Your task to perform on an android device: clear history in the chrome app Image 0: 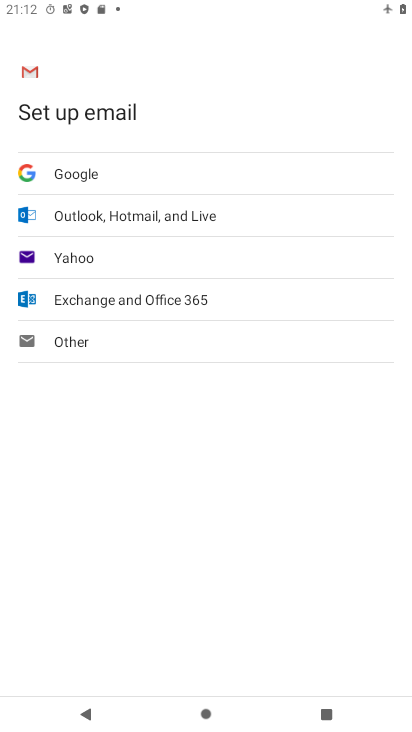
Step 0: press home button
Your task to perform on an android device: clear history in the chrome app Image 1: 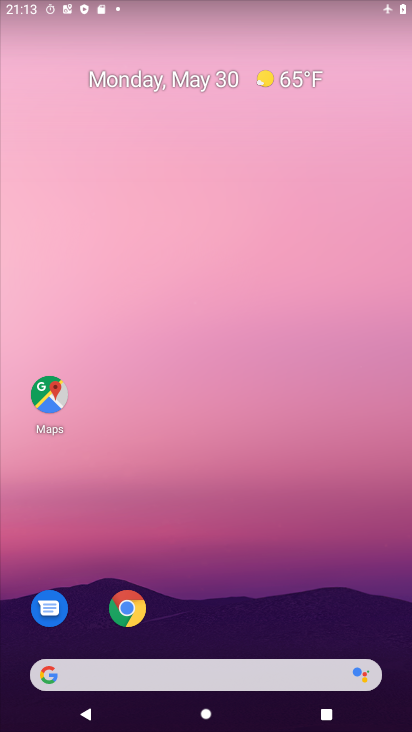
Step 1: click (118, 602)
Your task to perform on an android device: clear history in the chrome app Image 2: 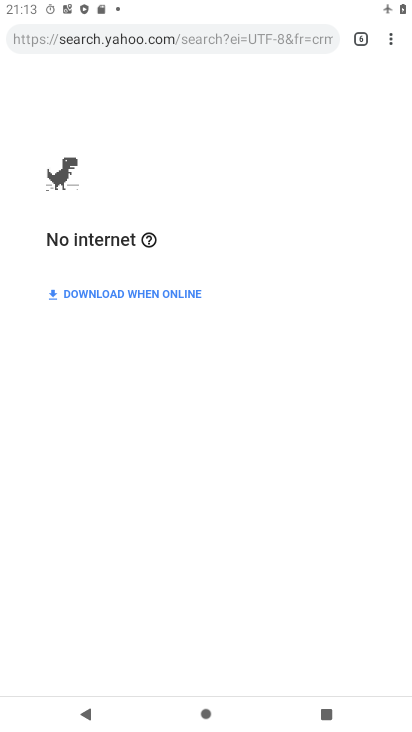
Step 2: click (393, 41)
Your task to perform on an android device: clear history in the chrome app Image 3: 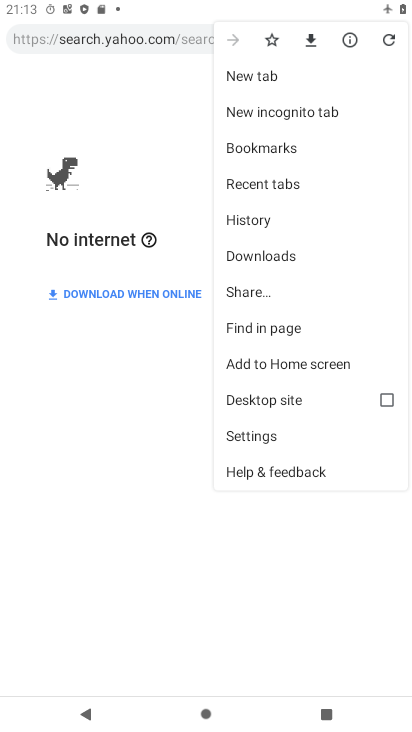
Step 3: click (285, 217)
Your task to perform on an android device: clear history in the chrome app Image 4: 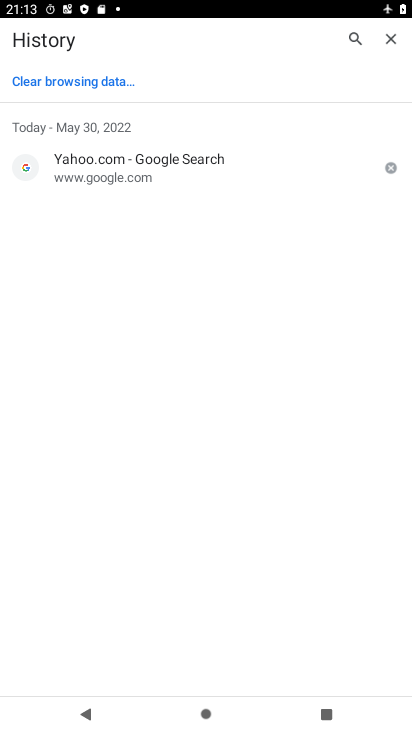
Step 4: click (43, 80)
Your task to perform on an android device: clear history in the chrome app Image 5: 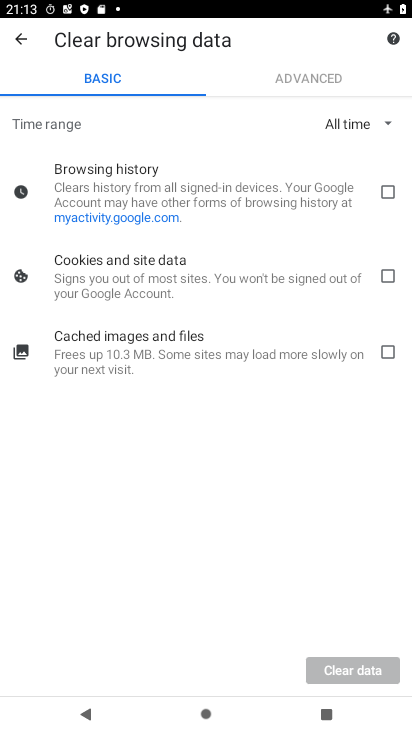
Step 5: click (383, 192)
Your task to perform on an android device: clear history in the chrome app Image 6: 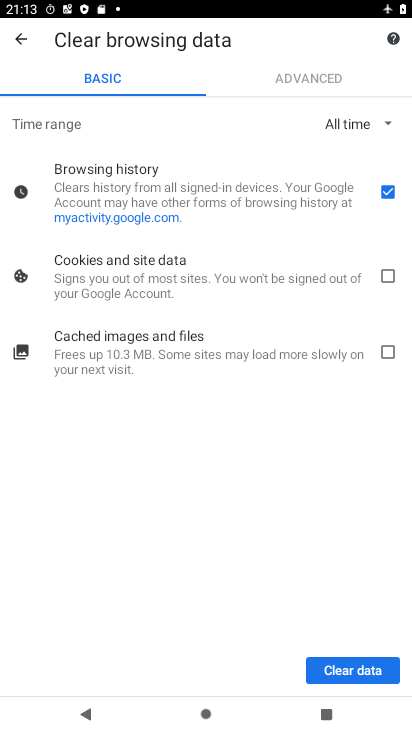
Step 6: click (384, 287)
Your task to perform on an android device: clear history in the chrome app Image 7: 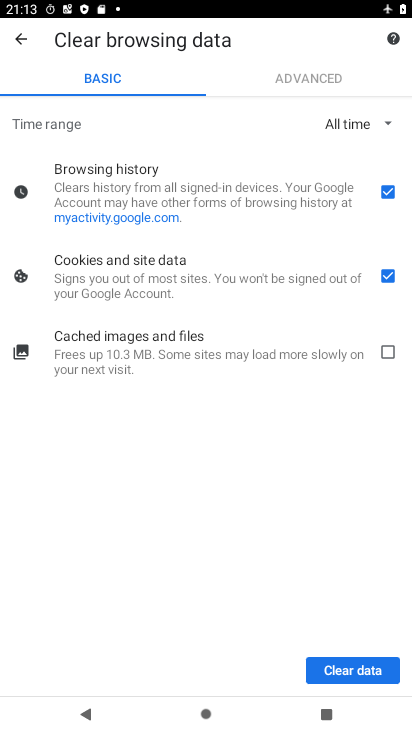
Step 7: click (392, 352)
Your task to perform on an android device: clear history in the chrome app Image 8: 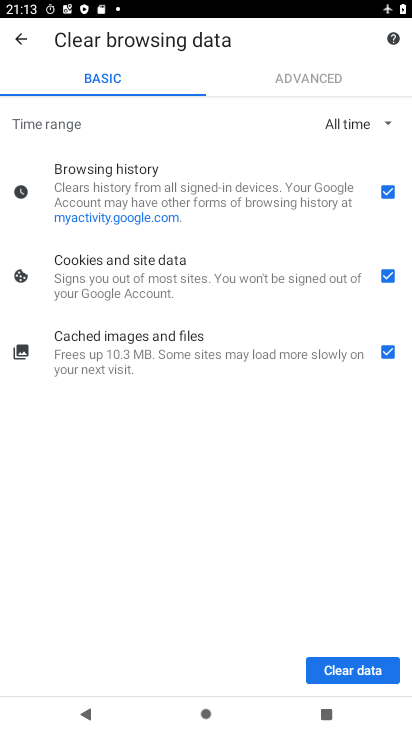
Step 8: click (365, 664)
Your task to perform on an android device: clear history in the chrome app Image 9: 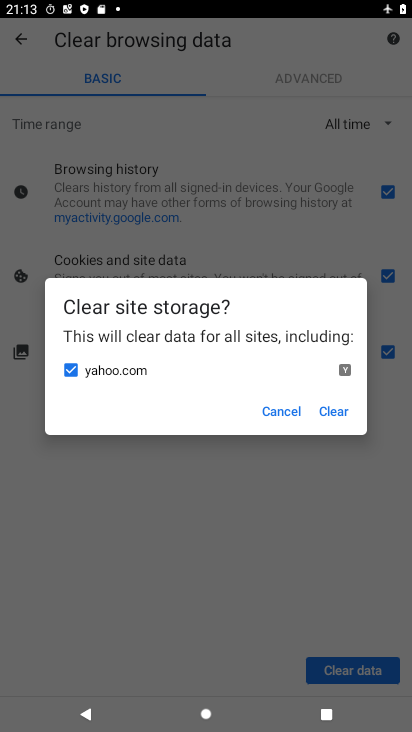
Step 9: click (326, 404)
Your task to perform on an android device: clear history in the chrome app Image 10: 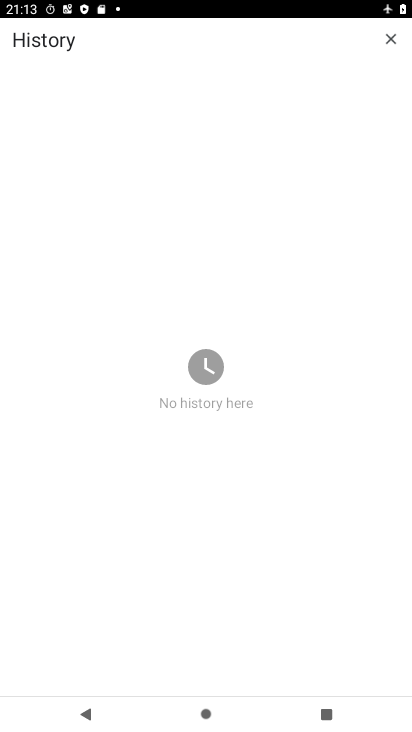
Step 10: task complete